Your task to perform on an android device: Open Google Chrome and click the shortcut for Amazon.com Image 0: 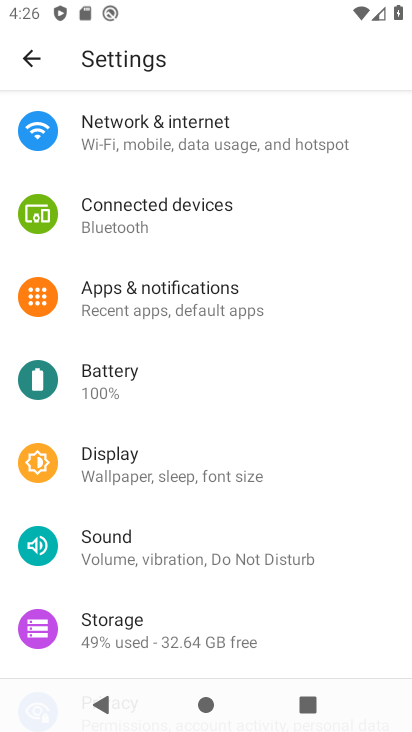
Step 0: press home button
Your task to perform on an android device: Open Google Chrome and click the shortcut for Amazon.com Image 1: 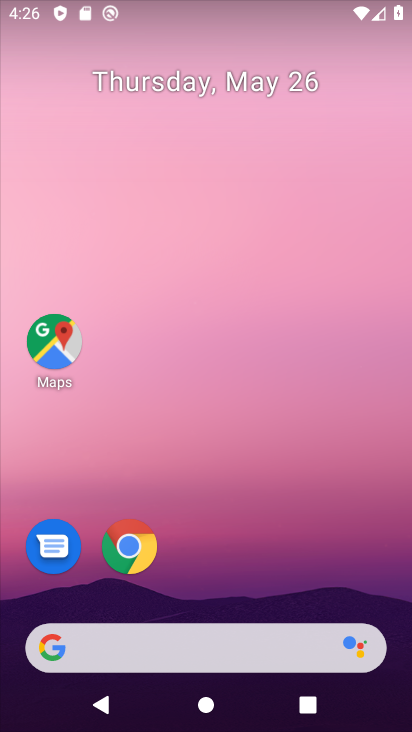
Step 1: click (140, 540)
Your task to perform on an android device: Open Google Chrome and click the shortcut for Amazon.com Image 2: 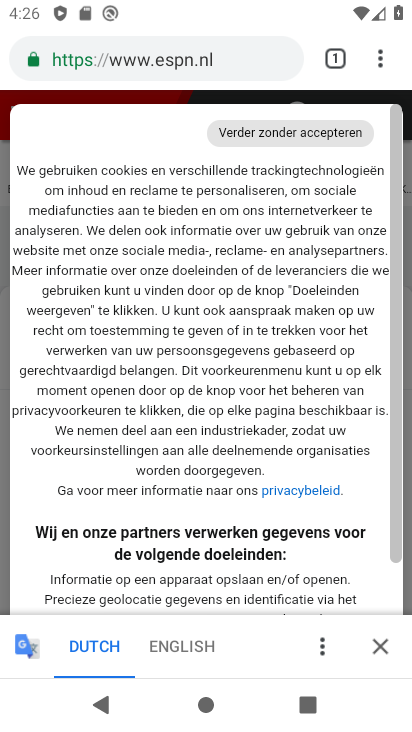
Step 2: click (338, 55)
Your task to perform on an android device: Open Google Chrome and click the shortcut for Amazon.com Image 3: 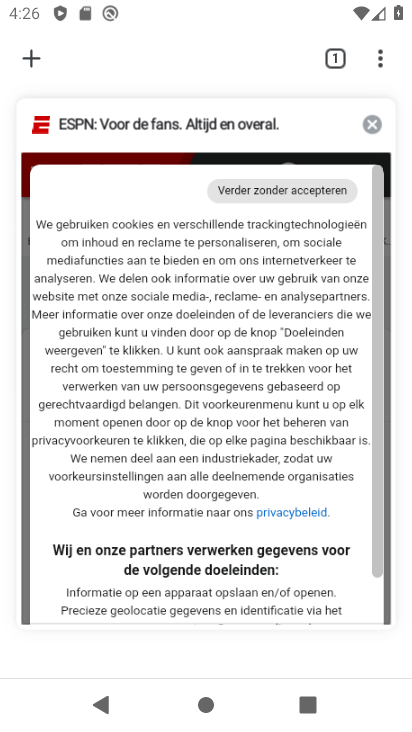
Step 3: click (22, 57)
Your task to perform on an android device: Open Google Chrome and click the shortcut for Amazon.com Image 4: 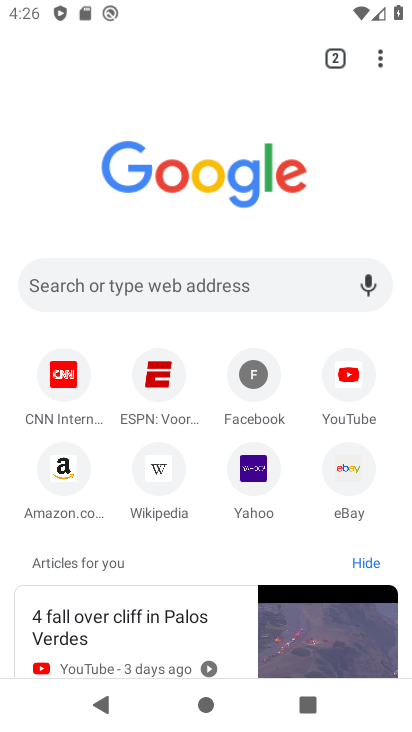
Step 4: click (66, 457)
Your task to perform on an android device: Open Google Chrome and click the shortcut for Amazon.com Image 5: 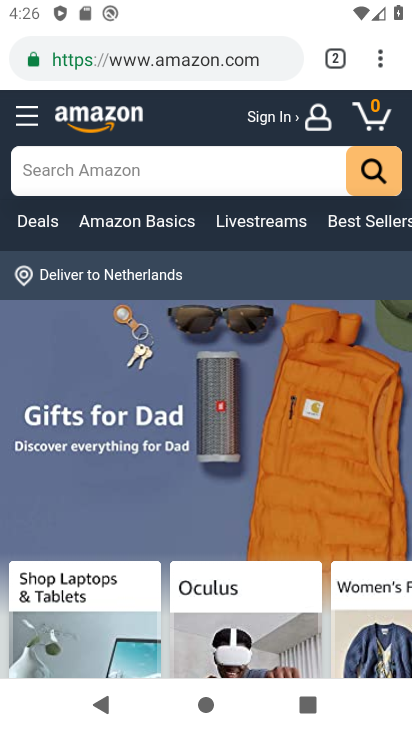
Step 5: task complete